Your task to perform on an android device: Open Maps and search for coffee Image 0: 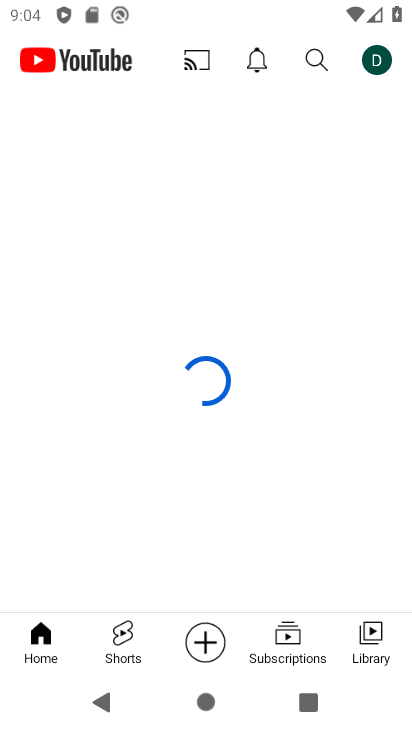
Step 0: press home button
Your task to perform on an android device: Open Maps and search for coffee Image 1: 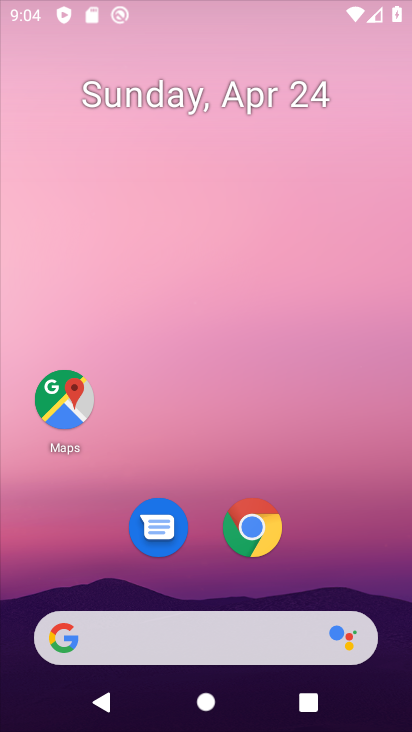
Step 1: drag from (382, 612) to (207, 57)
Your task to perform on an android device: Open Maps and search for coffee Image 2: 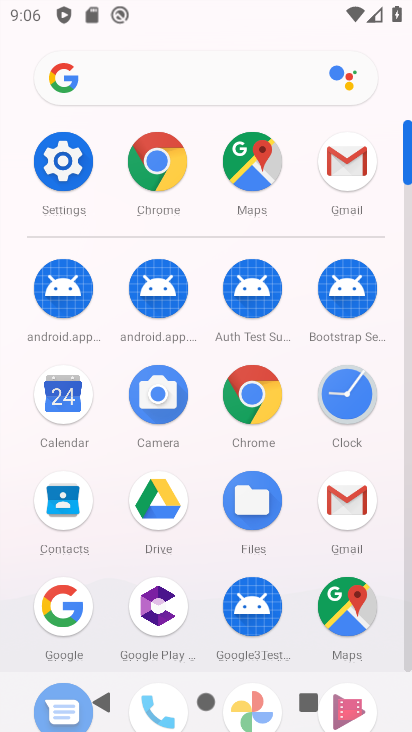
Step 2: click (348, 591)
Your task to perform on an android device: Open Maps and search for coffee Image 3: 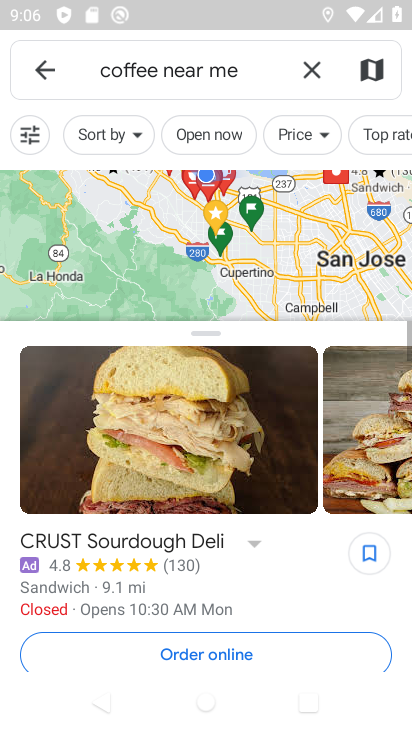
Step 3: task complete